Your task to perform on an android device: Search for Mexican restaurants on Maps Image 0: 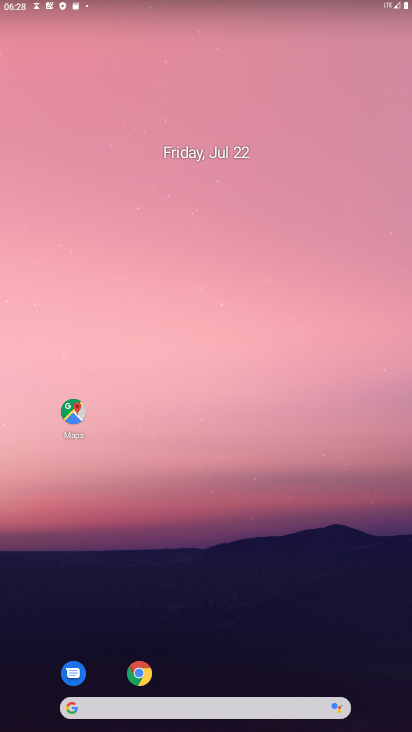
Step 0: press home button
Your task to perform on an android device: Search for Mexican restaurants on Maps Image 1: 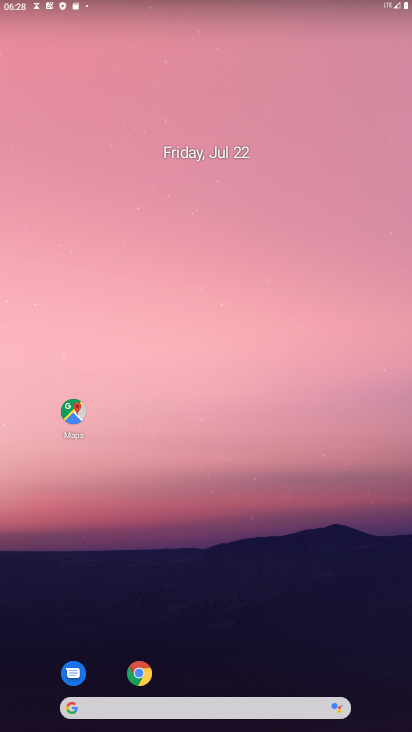
Step 1: drag from (238, 635) to (264, 4)
Your task to perform on an android device: Search for Mexican restaurants on Maps Image 2: 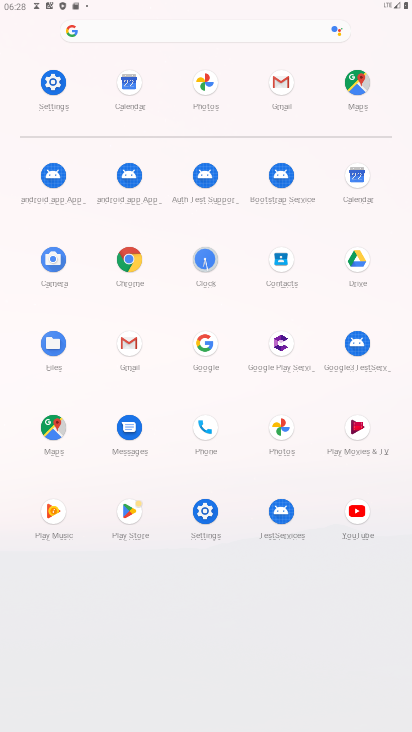
Step 2: click (355, 74)
Your task to perform on an android device: Search for Mexican restaurants on Maps Image 3: 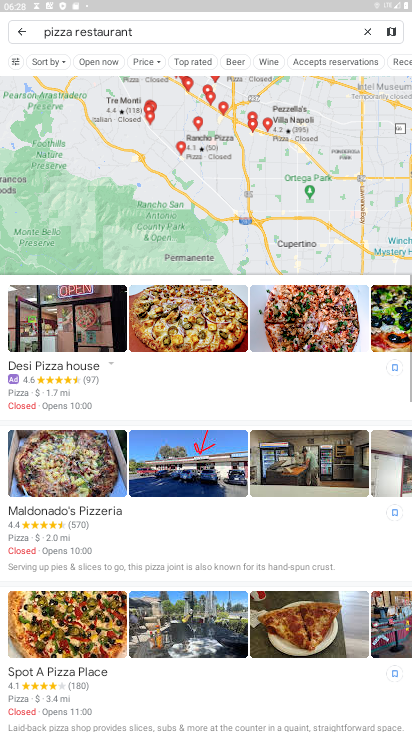
Step 3: click (369, 34)
Your task to perform on an android device: Search for Mexican restaurants on Maps Image 4: 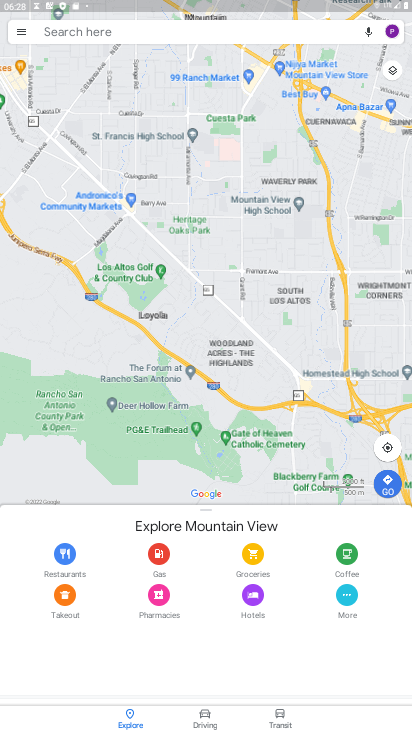
Step 4: click (91, 29)
Your task to perform on an android device: Search for Mexican restaurants on Maps Image 5: 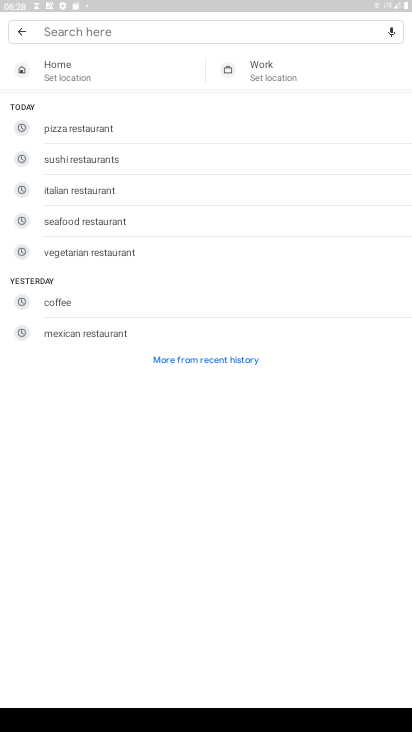
Step 5: click (78, 330)
Your task to perform on an android device: Search for Mexican restaurants on Maps Image 6: 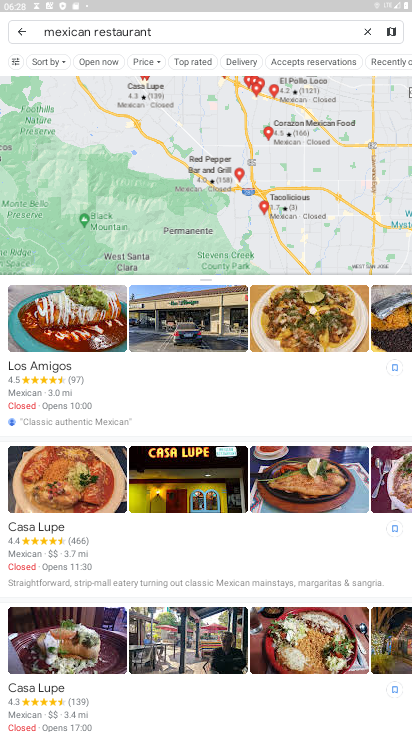
Step 6: task complete